Your task to perform on an android device: visit the assistant section in the google photos Image 0: 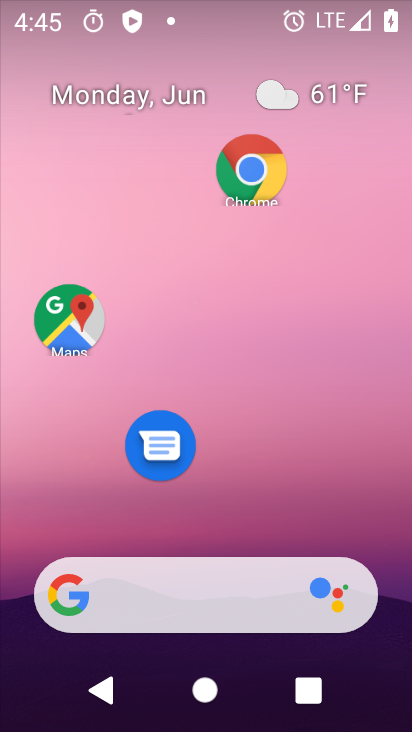
Step 0: drag from (238, 191) to (241, 100)
Your task to perform on an android device: visit the assistant section in the google photos Image 1: 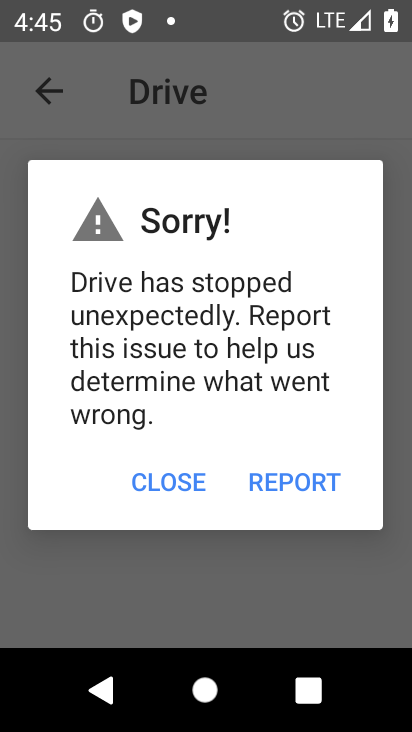
Step 1: press home button
Your task to perform on an android device: visit the assistant section in the google photos Image 2: 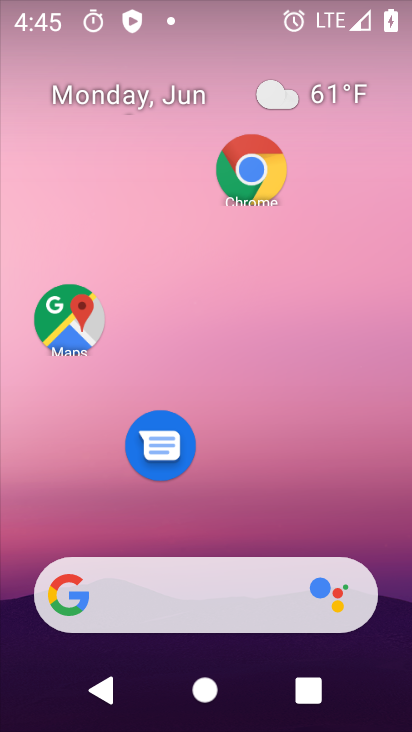
Step 2: drag from (205, 521) to (202, 104)
Your task to perform on an android device: visit the assistant section in the google photos Image 3: 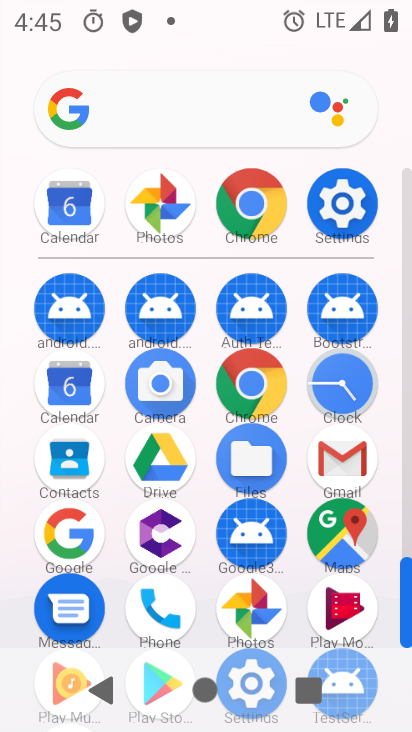
Step 3: click (254, 602)
Your task to perform on an android device: visit the assistant section in the google photos Image 4: 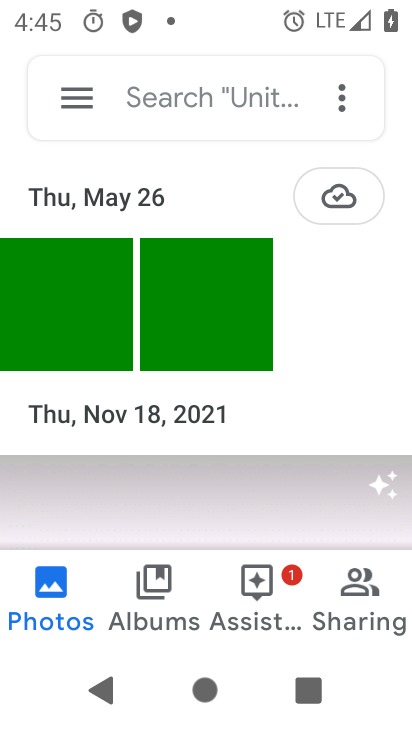
Step 4: click (67, 92)
Your task to perform on an android device: visit the assistant section in the google photos Image 5: 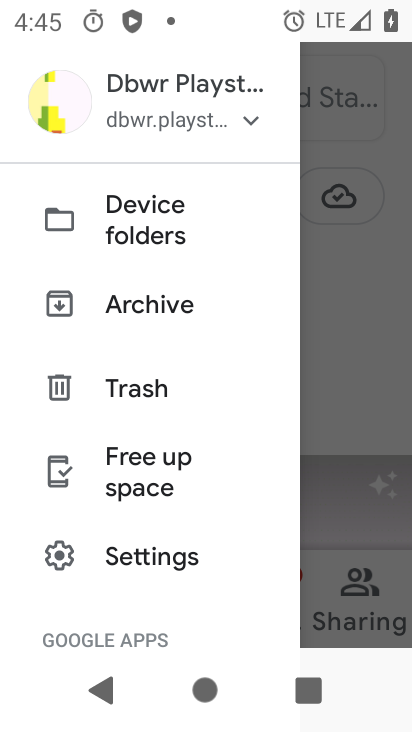
Step 5: press back button
Your task to perform on an android device: visit the assistant section in the google photos Image 6: 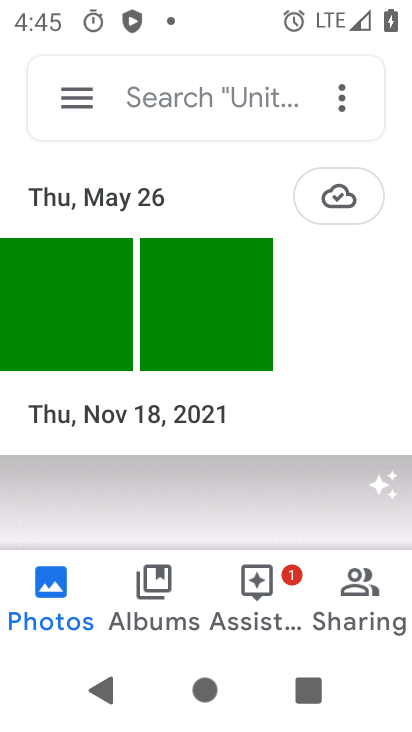
Step 6: click (286, 609)
Your task to perform on an android device: visit the assistant section in the google photos Image 7: 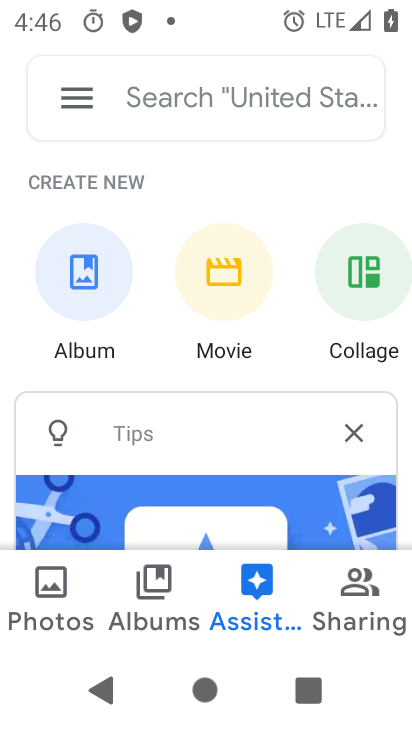
Step 7: task complete